Your task to perform on an android device: Go to privacy settings Image 0: 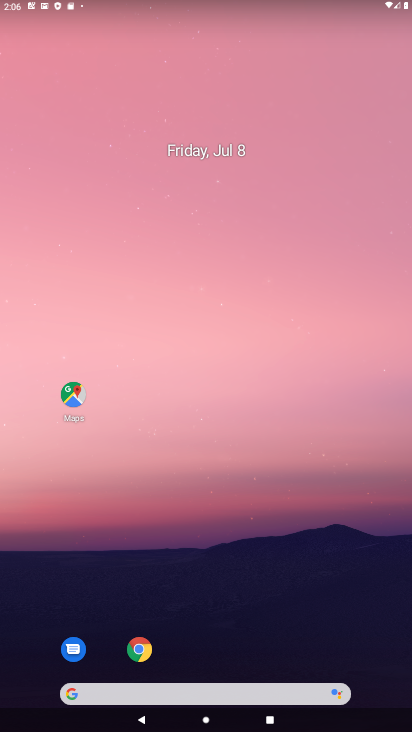
Step 0: drag from (345, 647) to (319, 85)
Your task to perform on an android device: Go to privacy settings Image 1: 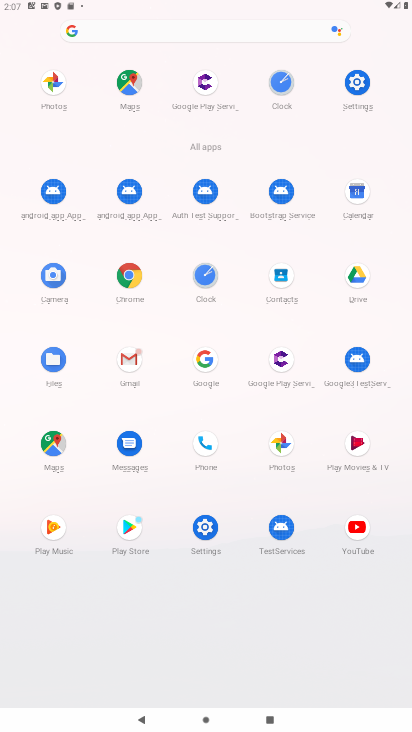
Step 1: click (204, 528)
Your task to perform on an android device: Go to privacy settings Image 2: 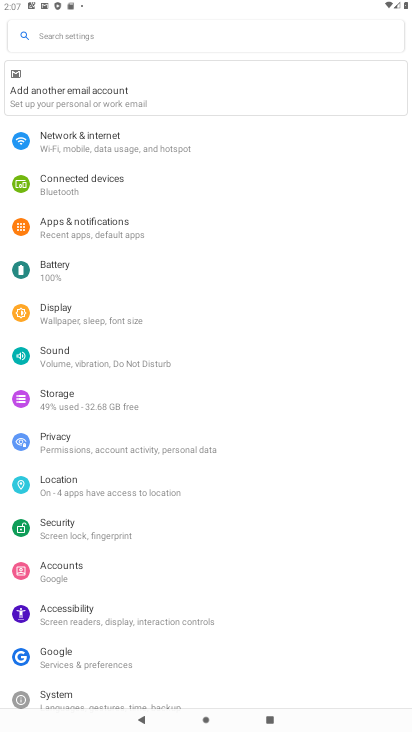
Step 2: click (51, 440)
Your task to perform on an android device: Go to privacy settings Image 3: 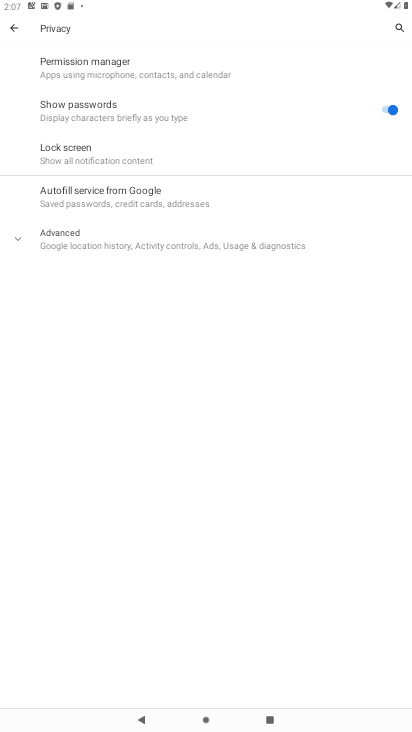
Step 3: task complete